Your task to perform on an android device: open the mobile data screen to see how much data has been used Image 0: 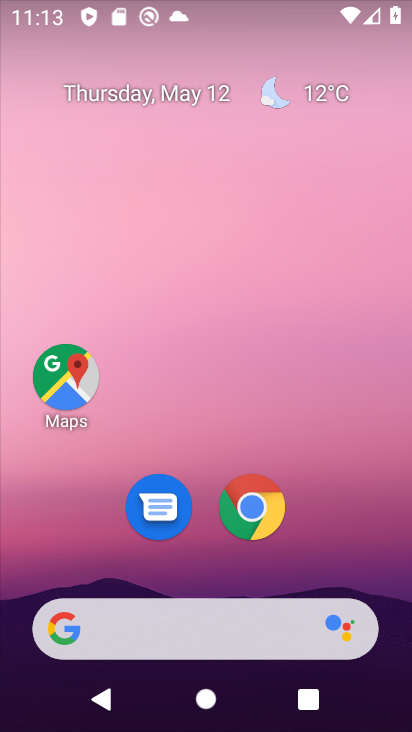
Step 0: drag from (206, 568) to (277, 4)
Your task to perform on an android device: open the mobile data screen to see how much data has been used Image 1: 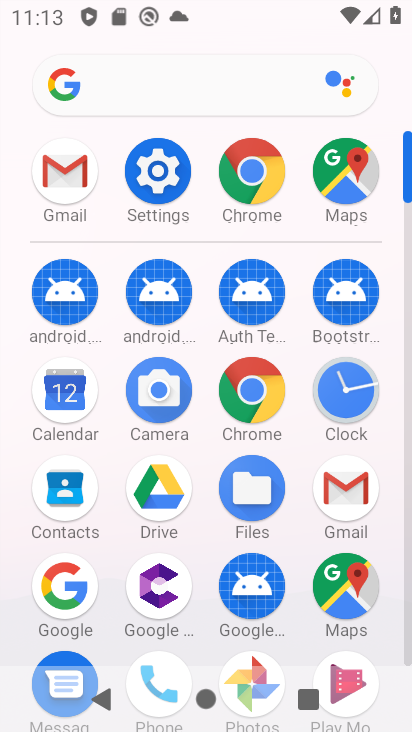
Step 1: click (168, 190)
Your task to perform on an android device: open the mobile data screen to see how much data has been used Image 2: 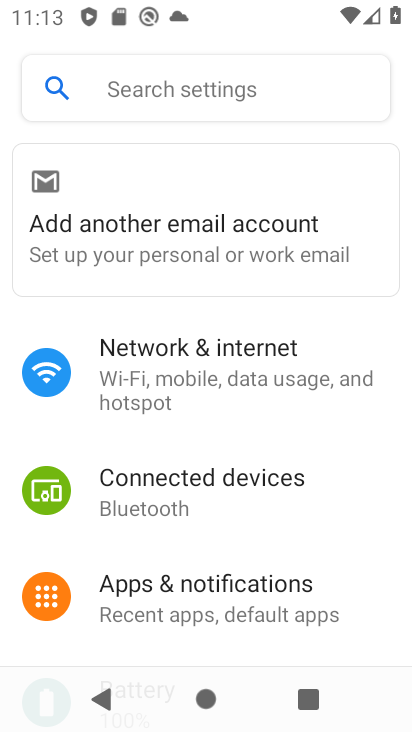
Step 2: click (187, 401)
Your task to perform on an android device: open the mobile data screen to see how much data has been used Image 3: 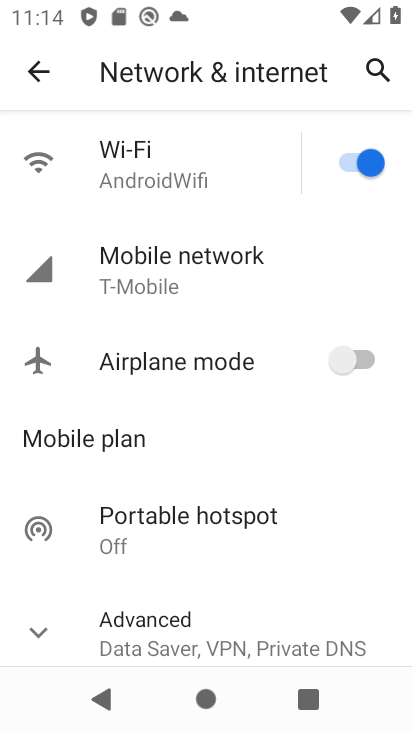
Step 3: click (185, 288)
Your task to perform on an android device: open the mobile data screen to see how much data has been used Image 4: 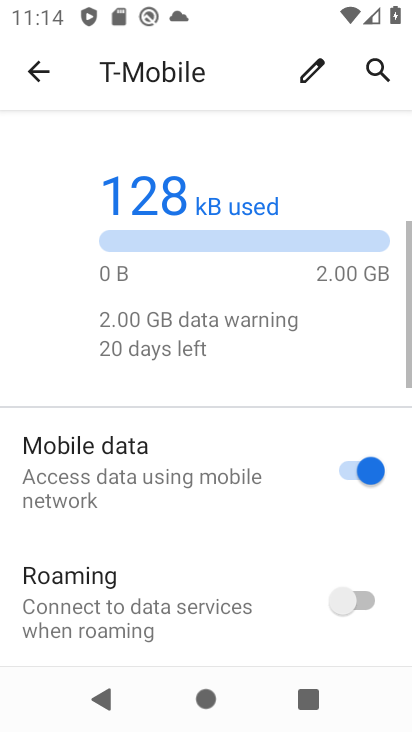
Step 4: drag from (180, 613) to (180, 348)
Your task to perform on an android device: open the mobile data screen to see how much data has been used Image 5: 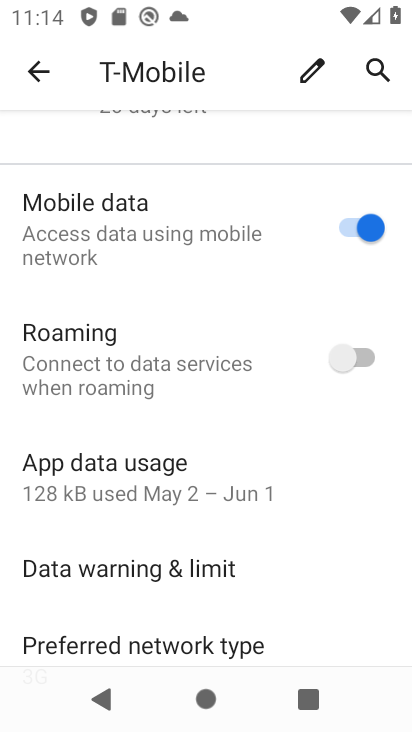
Step 5: click (132, 482)
Your task to perform on an android device: open the mobile data screen to see how much data has been used Image 6: 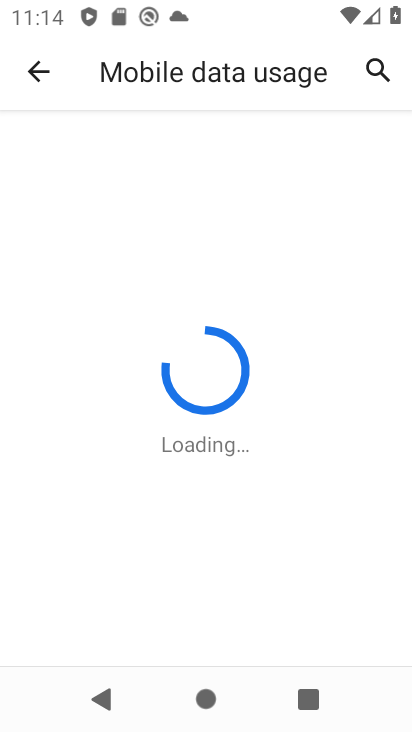
Step 6: task complete